Your task to perform on an android device: Go to accessibility settings Image 0: 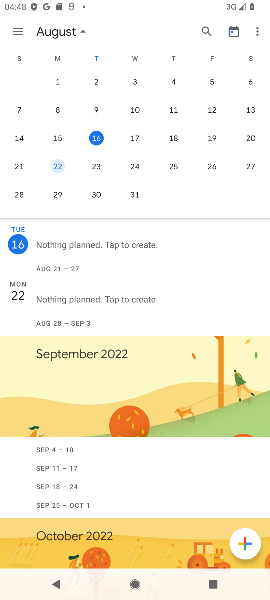
Step 0: press home button
Your task to perform on an android device: Go to accessibility settings Image 1: 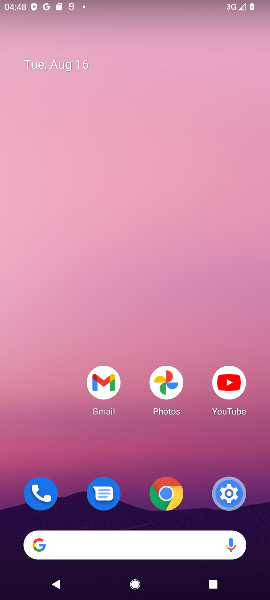
Step 1: drag from (66, 470) to (105, 103)
Your task to perform on an android device: Go to accessibility settings Image 2: 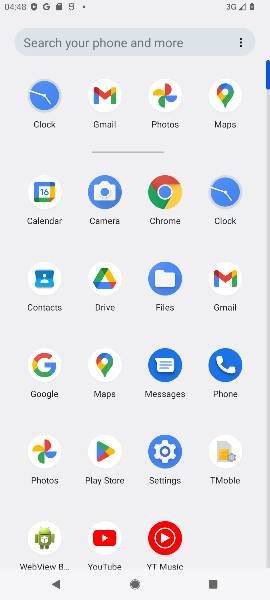
Step 2: click (164, 457)
Your task to perform on an android device: Go to accessibility settings Image 3: 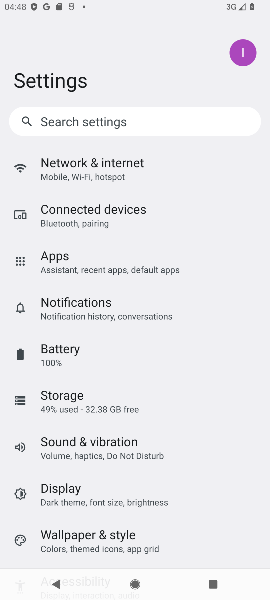
Step 3: drag from (243, 431) to (243, 368)
Your task to perform on an android device: Go to accessibility settings Image 4: 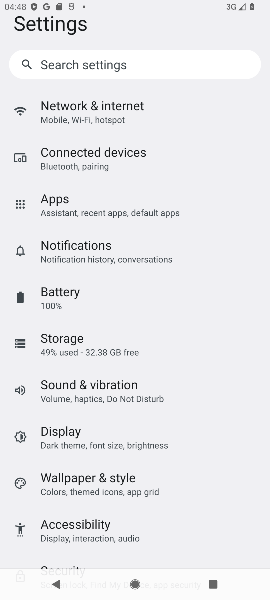
Step 4: drag from (218, 497) to (232, 424)
Your task to perform on an android device: Go to accessibility settings Image 5: 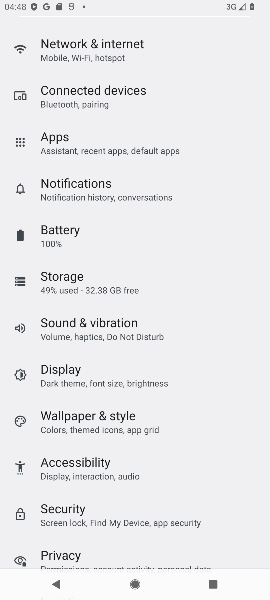
Step 5: drag from (231, 527) to (239, 415)
Your task to perform on an android device: Go to accessibility settings Image 6: 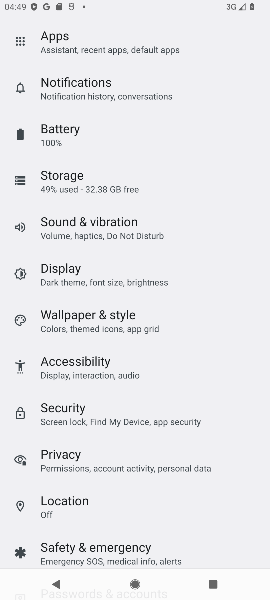
Step 6: drag from (224, 529) to (241, 405)
Your task to perform on an android device: Go to accessibility settings Image 7: 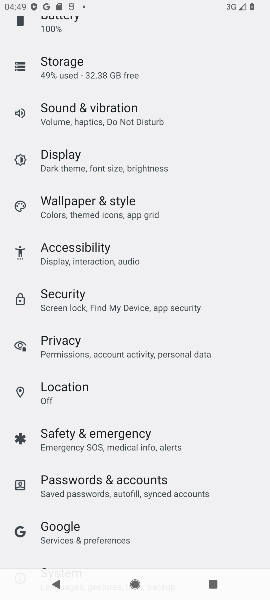
Step 7: click (96, 250)
Your task to perform on an android device: Go to accessibility settings Image 8: 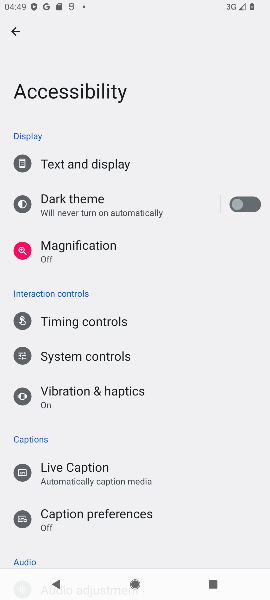
Step 8: task complete